Your task to perform on an android device: Go to Amazon Image 0: 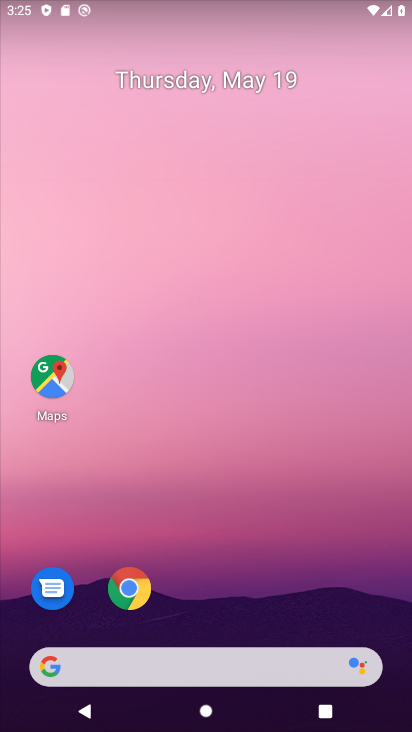
Step 0: click (128, 598)
Your task to perform on an android device: Go to Amazon Image 1: 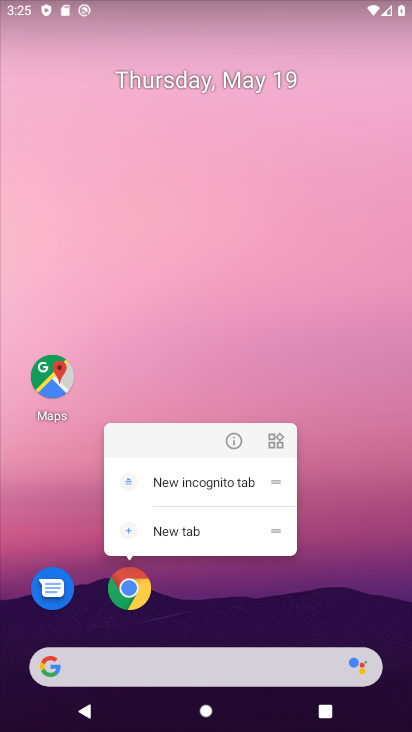
Step 1: click (126, 583)
Your task to perform on an android device: Go to Amazon Image 2: 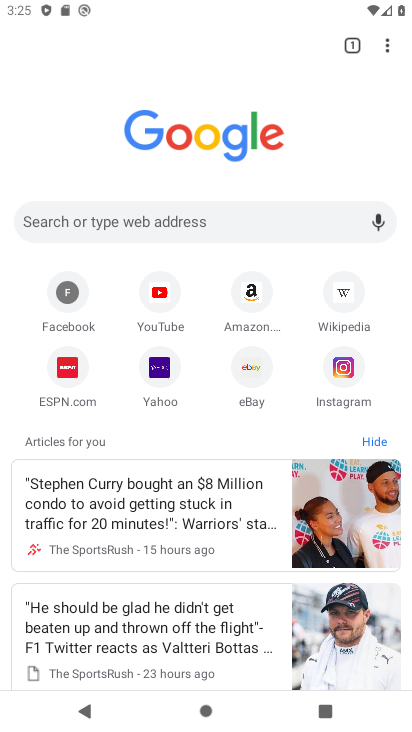
Step 2: click (255, 287)
Your task to perform on an android device: Go to Amazon Image 3: 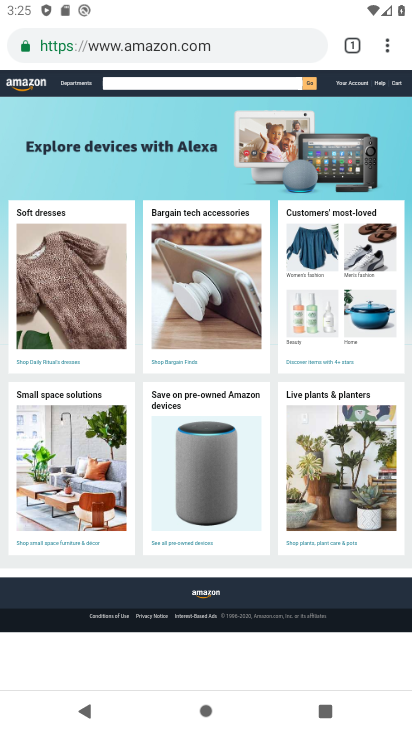
Step 3: task complete